Your task to perform on an android device: Search for rayovac triple a on bestbuy.com, select the first entry, add it to the cart, then select checkout. Image 0: 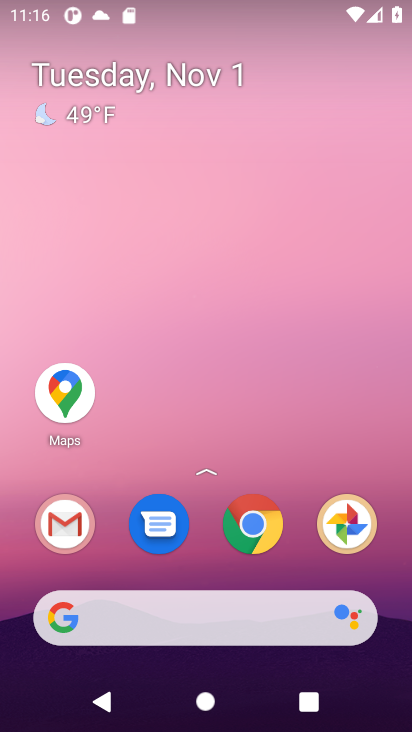
Step 0: press home button
Your task to perform on an android device: Search for rayovac triple a on bestbuy.com, select the first entry, add it to the cart, then select checkout. Image 1: 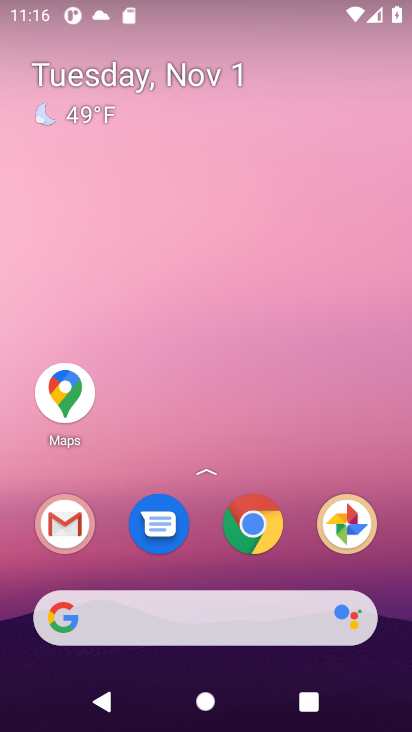
Step 1: click (118, 618)
Your task to perform on an android device: Search for rayovac triple a on bestbuy.com, select the first entry, add it to the cart, then select checkout. Image 2: 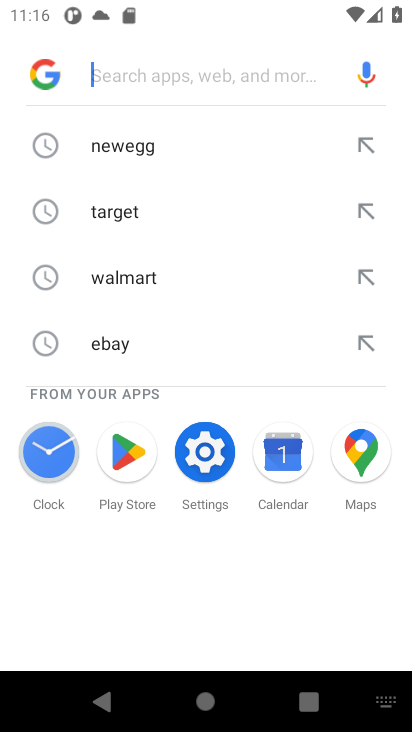
Step 2: type "bestbuy.com"
Your task to perform on an android device: Search for rayovac triple a on bestbuy.com, select the first entry, add it to the cart, then select checkout. Image 3: 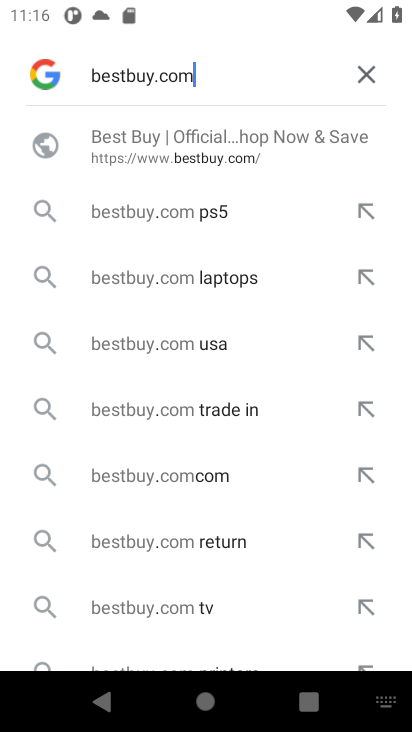
Step 3: press enter
Your task to perform on an android device: Search for rayovac triple a on bestbuy.com, select the first entry, add it to the cart, then select checkout. Image 4: 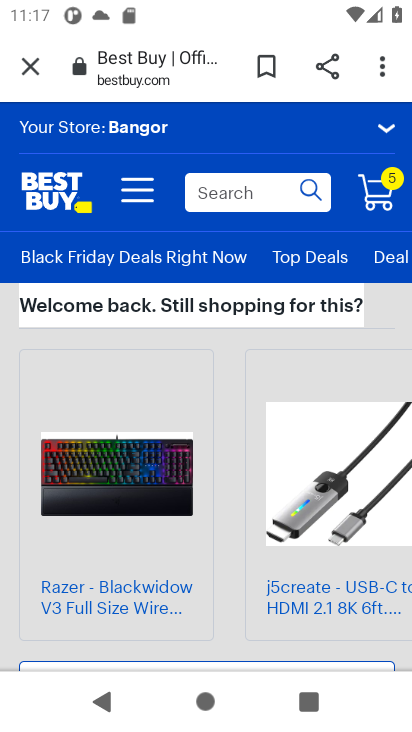
Step 4: click (244, 189)
Your task to perform on an android device: Search for rayovac triple a on bestbuy.com, select the first entry, add it to the cart, then select checkout. Image 5: 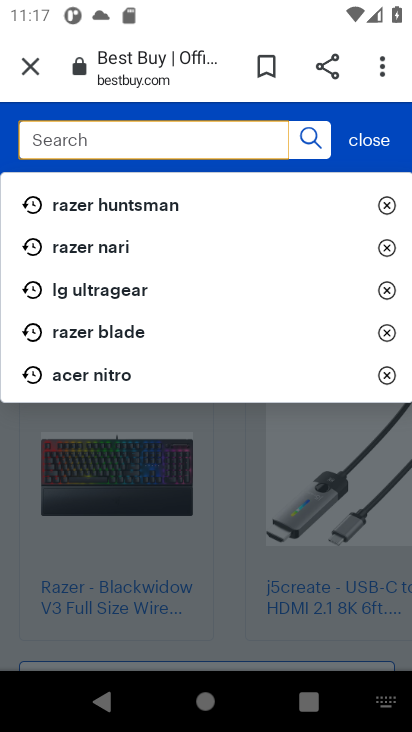
Step 5: type "rayovac triple a"
Your task to perform on an android device: Search for rayovac triple a on bestbuy.com, select the first entry, add it to the cart, then select checkout. Image 6: 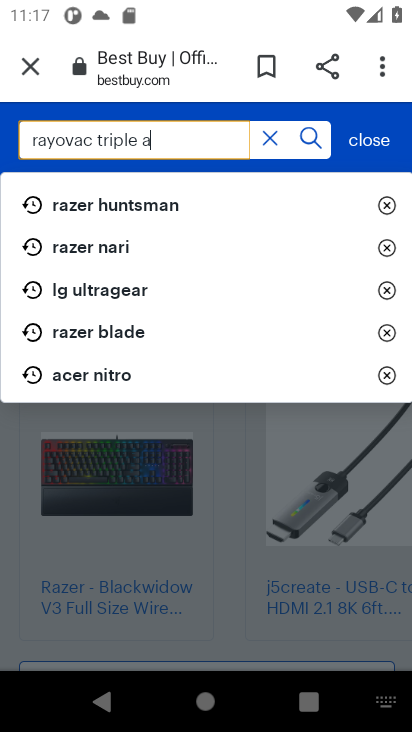
Step 6: press enter
Your task to perform on an android device: Search for rayovac triple a on bestbuy.com, select the first entry, add it to the cart, then select checkout. Image 7: 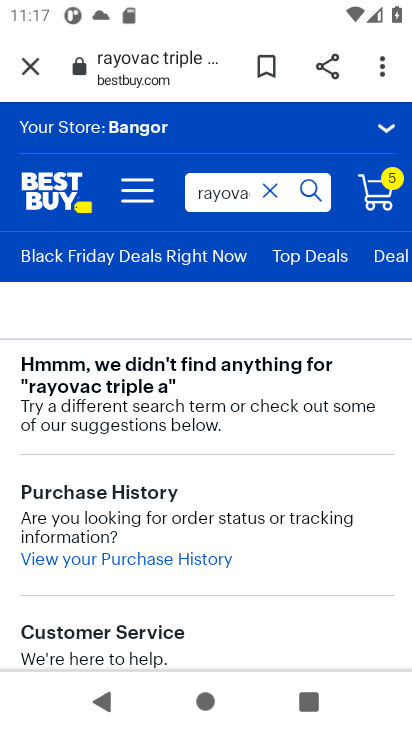
Step 7: task complete